Your task to perform on an android device: What's on my calendar today? Image 0: 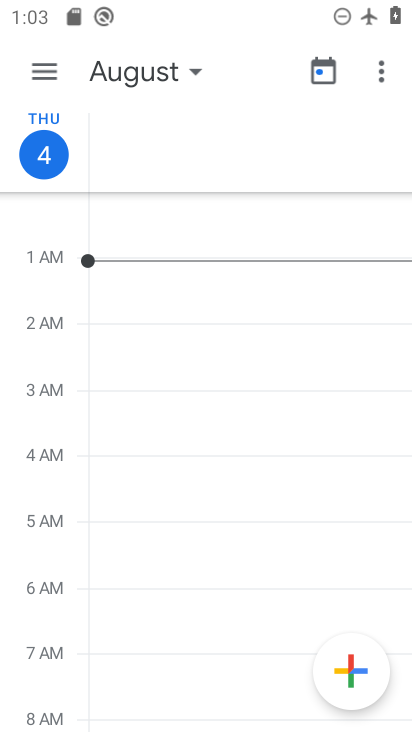
Step 0: task complete